Your task to perform on an android device: add a contact Image 0: 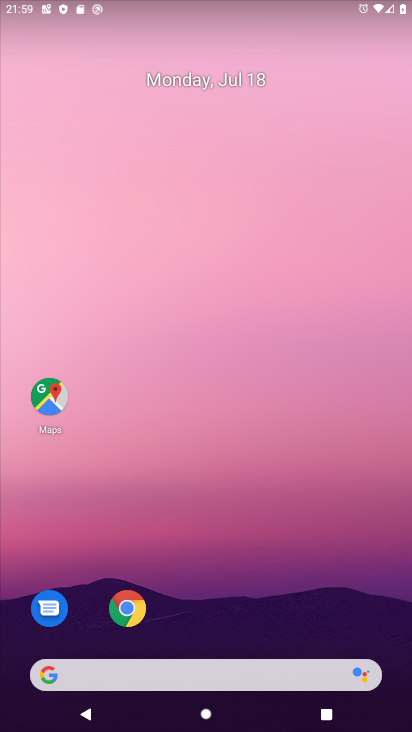
Step 0: drag from (290, 122) to (325, 33)
Your task to perform on an android device: add a contact Image 1: 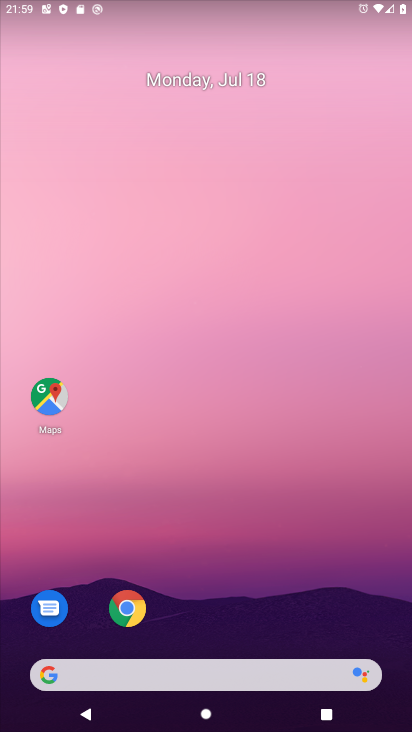
Step 1: drag from (41, 703) to (342, 142)
Your task to perform on an android device: add a contact Image 2: 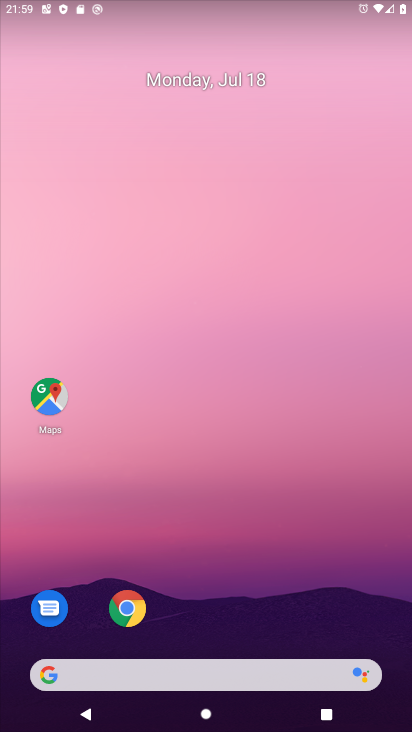
Step 2: drag from (157, 464) to (273, 21)
Your task to perform on an android device: add a contact Image 3: 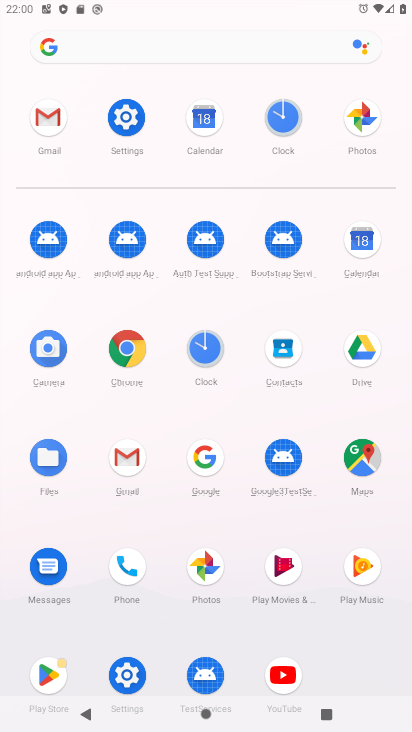
Step 3: click (278, 369)
Your task to perform on an android device: add a contact Image 4: 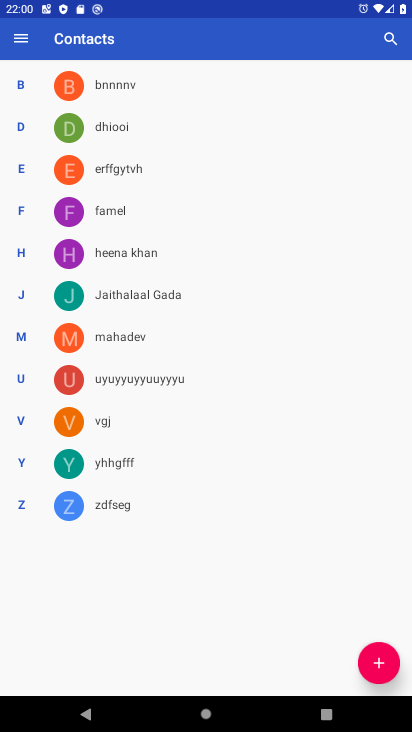
Step 4: click (382, 659)
Your task to perform on an android device: add a contact Image 5: 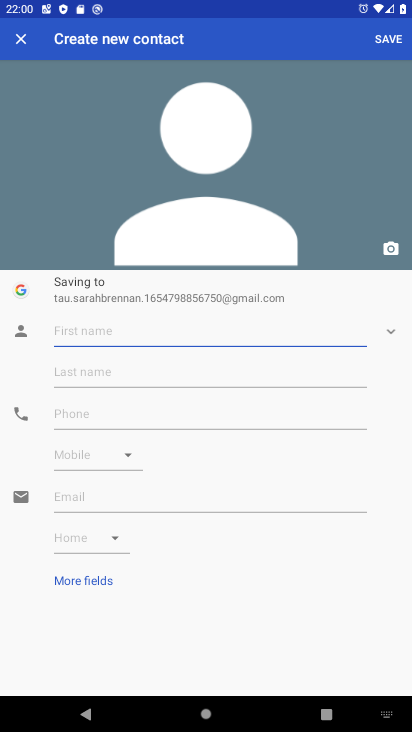
Step 5: type "gfhrt"
Your task to perform on an android device: add a contact Image 6: 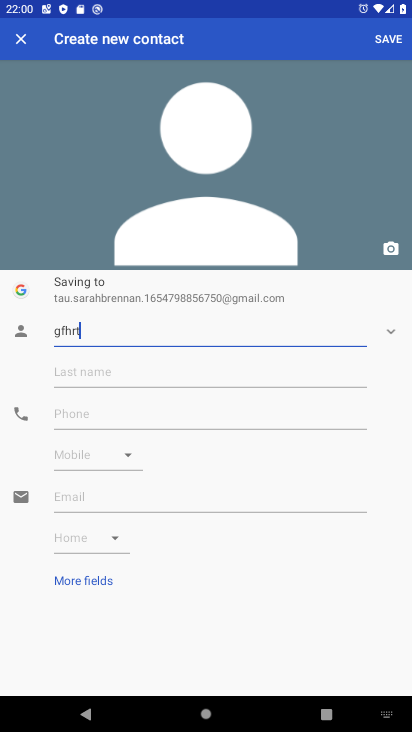
Step 6: type ""
Your task to perform on an android device: add a contact Image 7: 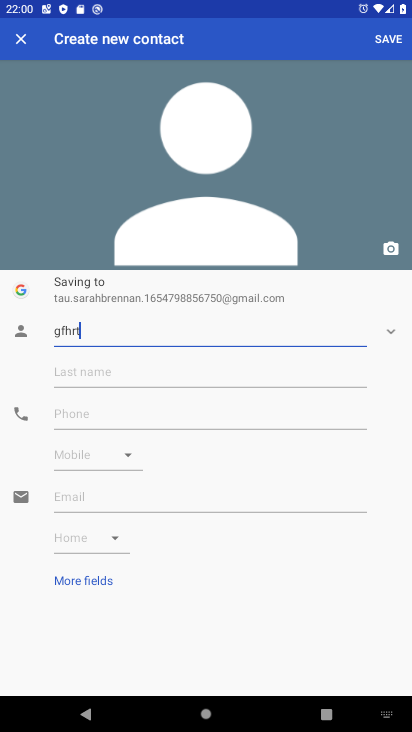
Step 7: click (384, 43)
Your task to perform on an android device: add a contact Image 8: 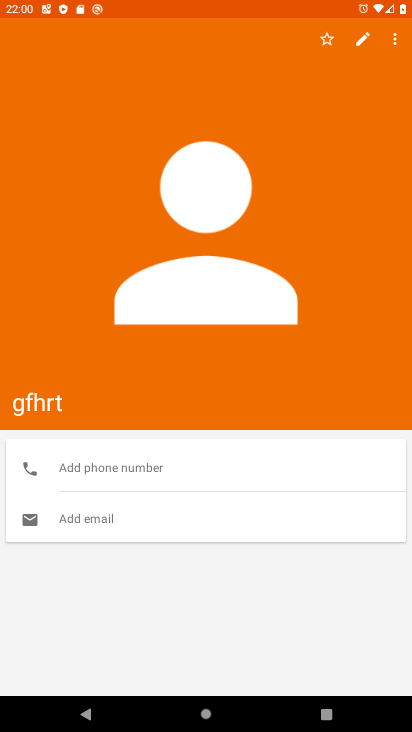
Step 8: task complete